Your task to perform on an android device: turn off airplane mode Image 0: 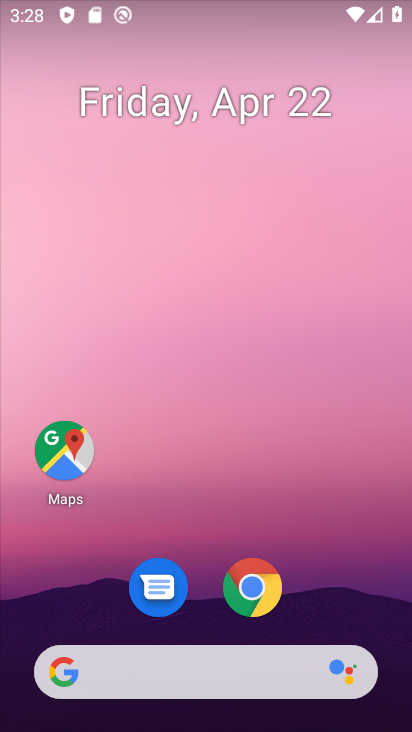
Step 0: drag from (314, 611) to (344, 60)
Your task to perform on an android device: turn off airplane mode Image 1: 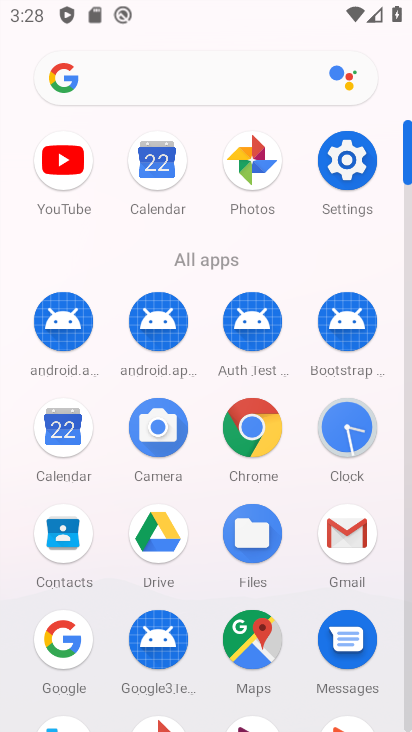
Step 1: click (345, 161)
Your task to perform on an android device: turn off airplane mode Image 2: 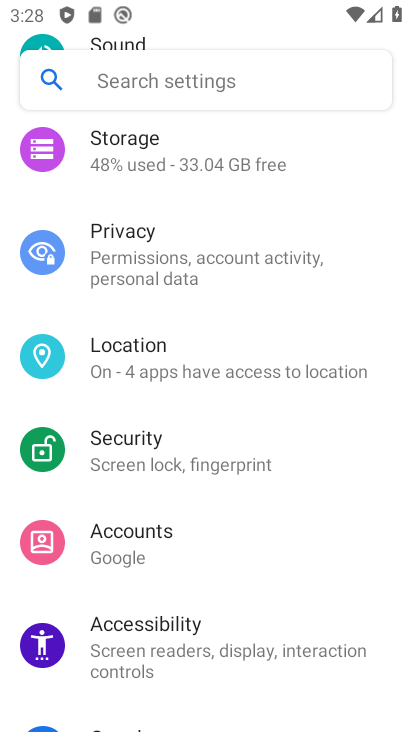
Step 2: drag from (241, 262) to (254, 411)
Your task to perform on an android device: turn off airplane mode Image 3: 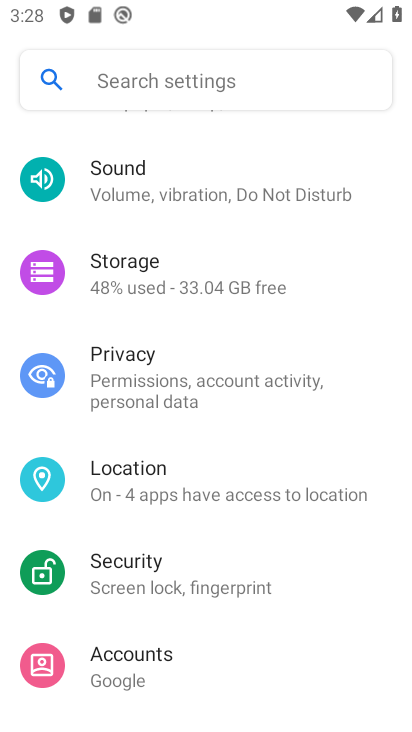
Step 3: drag from (255, 188) to (305, 396)
Your task to perform on an android device: turn off airplane mode Image 4: 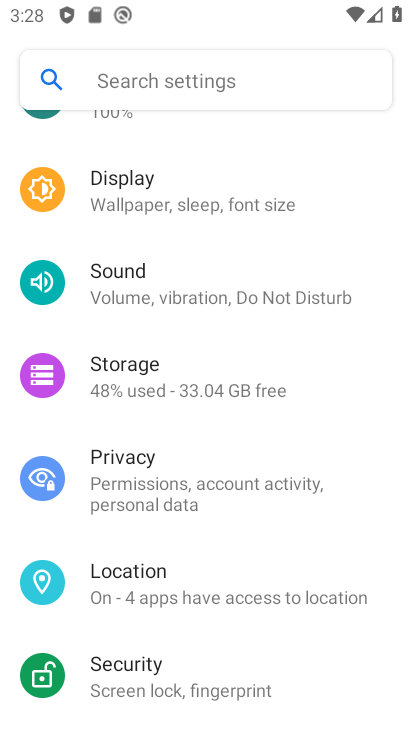
Step 4: drag from (253, 241) to (288, 370)
Your task to perform on an android device: turn off airplane mode Image 5: 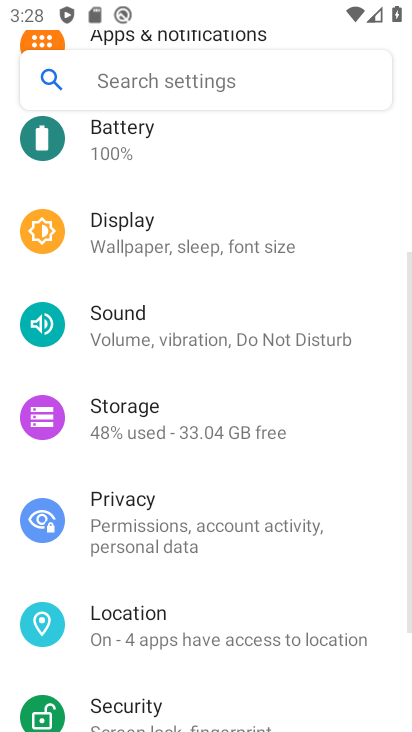
Step 5: drag from (249, 144) to (276, 302)
Your task to perform on an android device: turn off airplane mode Image 6: 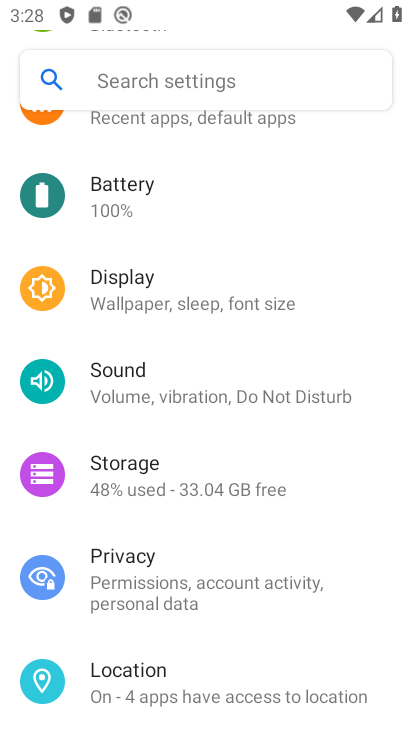
Step 6: drag from (249, 181) to (268, 344)
Your task to perform on an android device: turn off airplane mode Image 7: 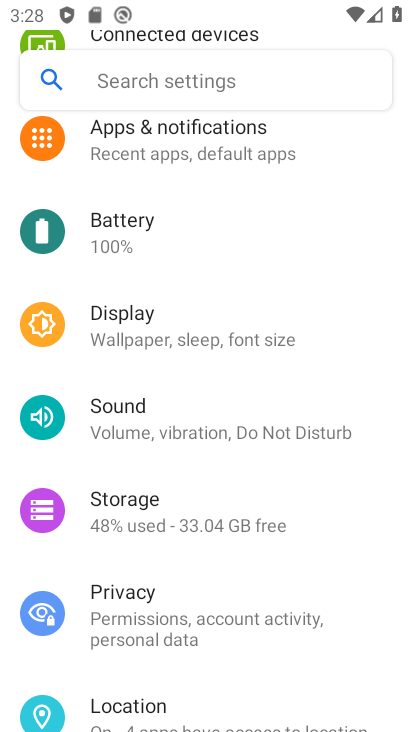
Step 7: drag from (246, 203) to (280, 384)
Your task to perform on an android device: turn off airplane mode Image 8: 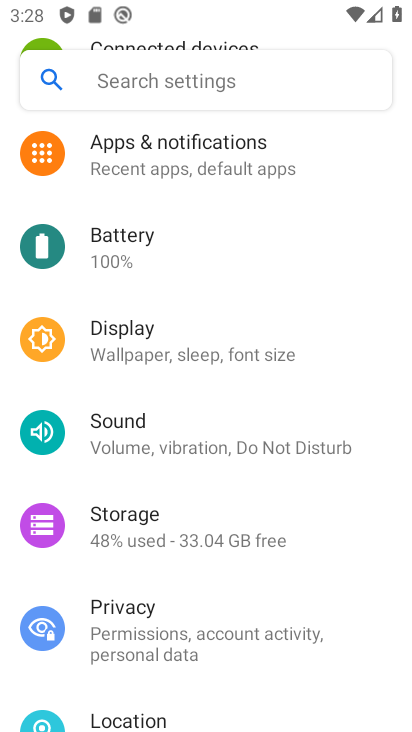
Step 8: drag from (237, 210) to (262, 463)
Your task to perform on an android device: turn off airplane mode Image 9: 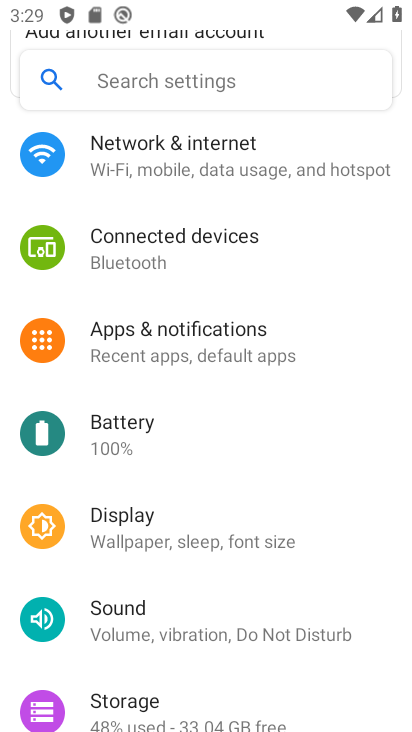
Step 9: click (254, 167)
Your task to perform on an android device: turn off airplane mode Image 10: 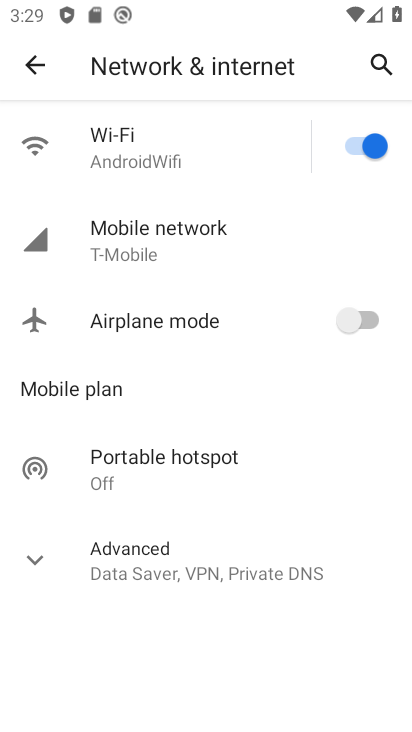
Step 10: task complete